Your task to perform on an android device: set an alarm Image 0: 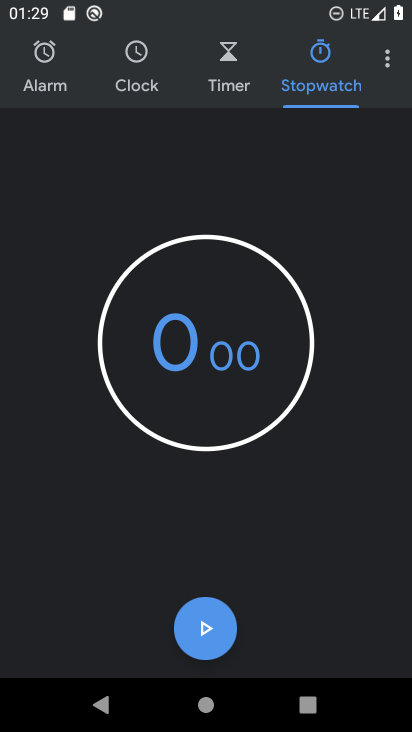
Step 0: click (35, 62)
Your task to perform on an android device: set an alarm Image 1: 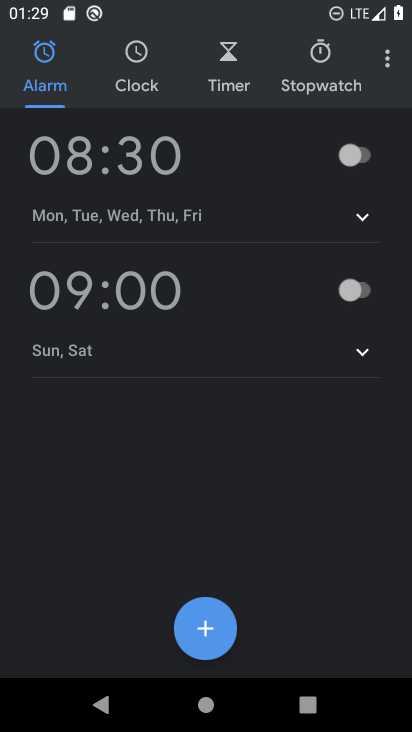
Step 1: click (369, 150)
Your task to perform on an android device: set an alarm Image 2: 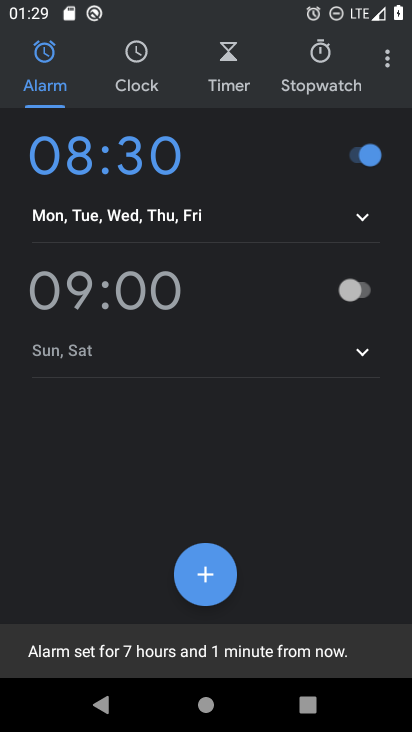
Step 2: task complete